Your task to perform on an android device: Open the calendar and show me this week's events? Image 0: 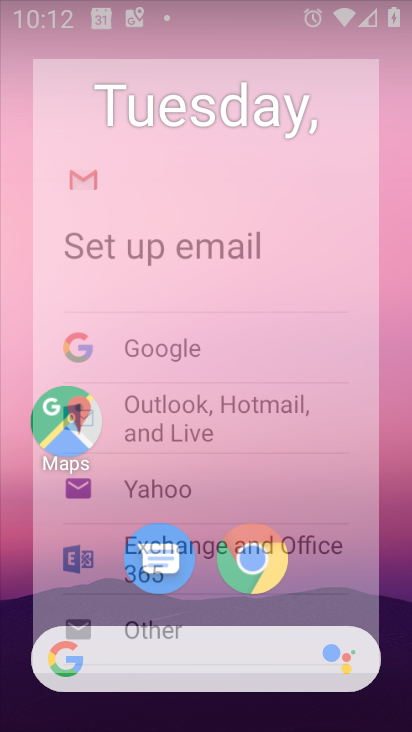
Step 0: drag from (292, 636) to (298, 76)
Your task to perform on an android device: Open the calendar and show me this week's events? Image 1: 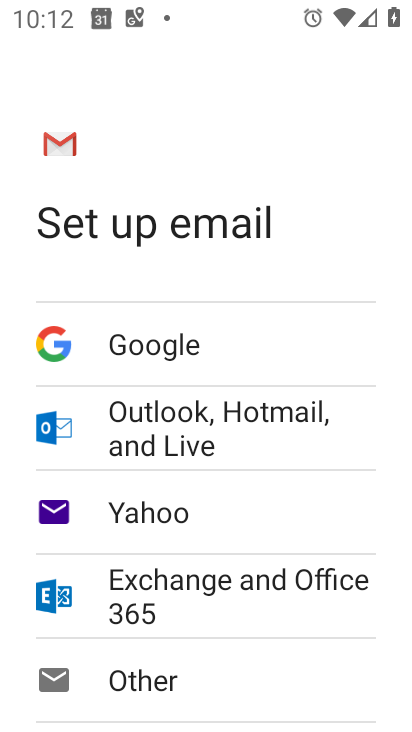
Step 1: press back button
Your task to perform on an android device: Open the calendar and show me this week's events? Image 2: 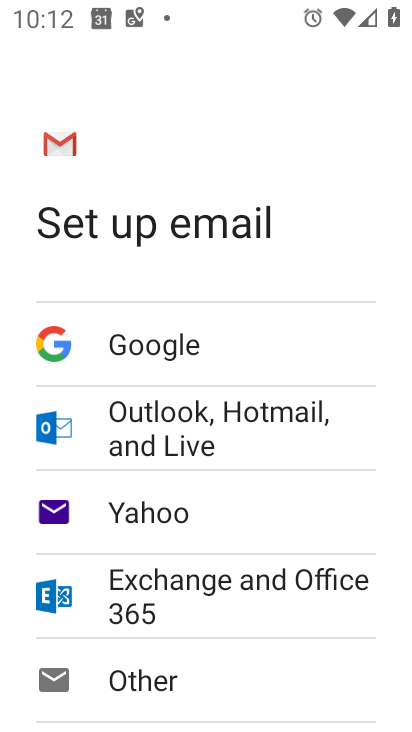
Step 2: press back button
Your task to perform on an android device: Open the calendar and show me this week's events? Image 3: 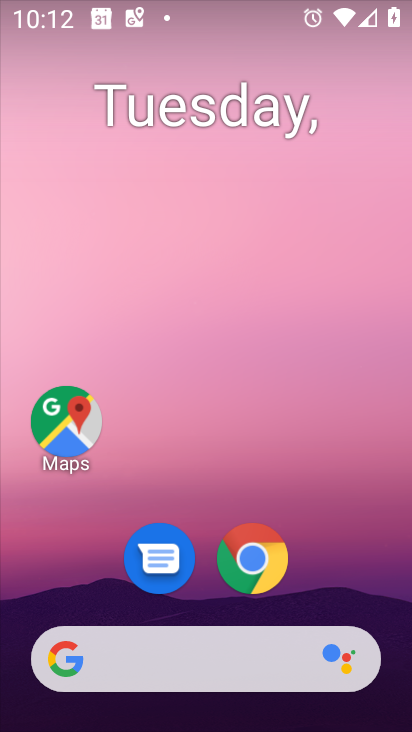
Step 3: drag from (268, 563) to (128, 35)
Your task to perform on an android device: Open the calendar and show me this week's events? Image 4: 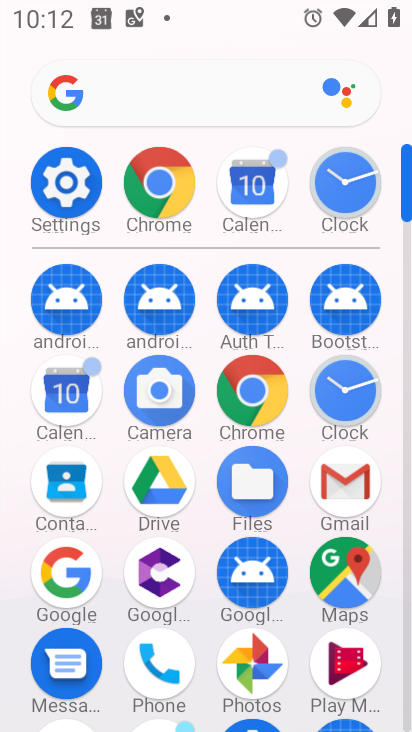
Step 4: click (81, 398)
Your task to perform on an android device: Open the calendar and show me this week's events? Image 5: 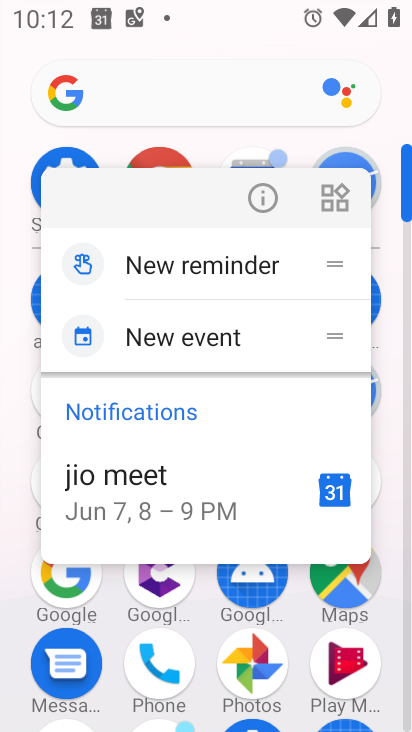
Step 5: click (86, 381)
Your task to perform on an android device: Open the calendar and show me this week's events? Image 6: 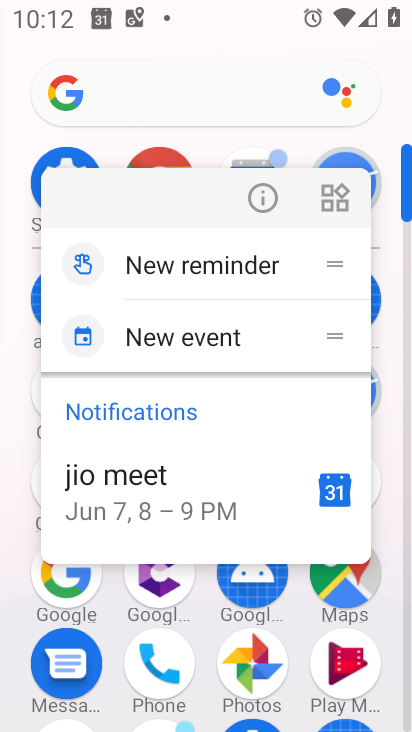
Step 6: click (0, 422)
Your task to perform on an android device: Open the calendar and show me this week's events? Image 7: 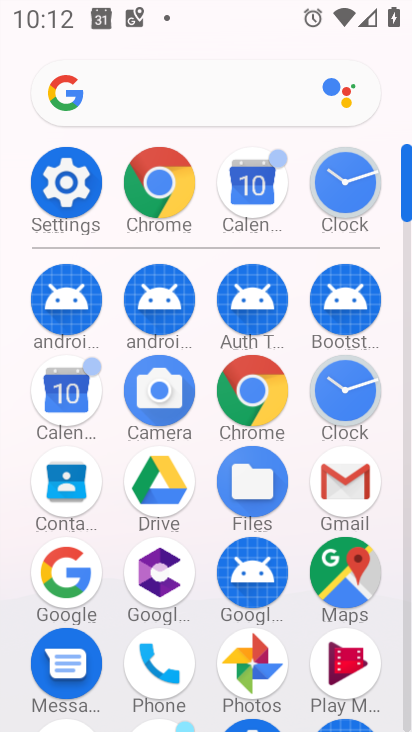
Step 7: click (22, 405)
Your task to perform on an android device: Open the calendar and show me this week's events? Image 8: 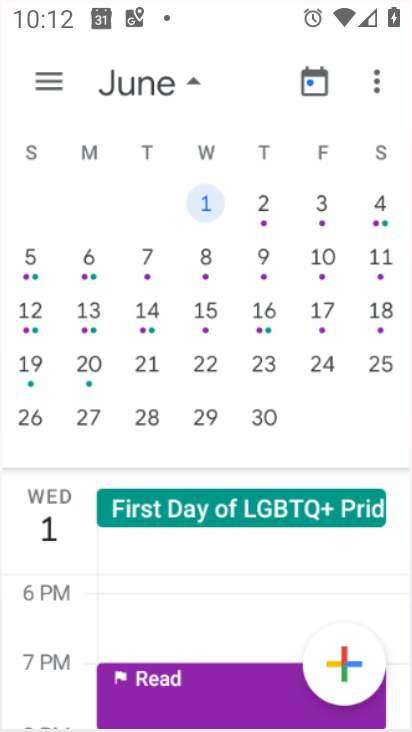
Step 8: click (67, 388)
Your task to perform on an android device: Open the calendar and show me this week's events? Image 9: 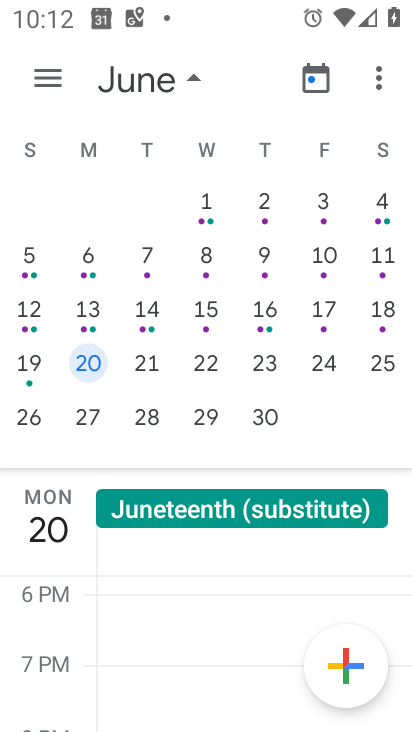
Step 9: drag from (94, 335) to (395, 260)
Your task to perform on an android device: Open the calendar and show me this week's events? Image 10: 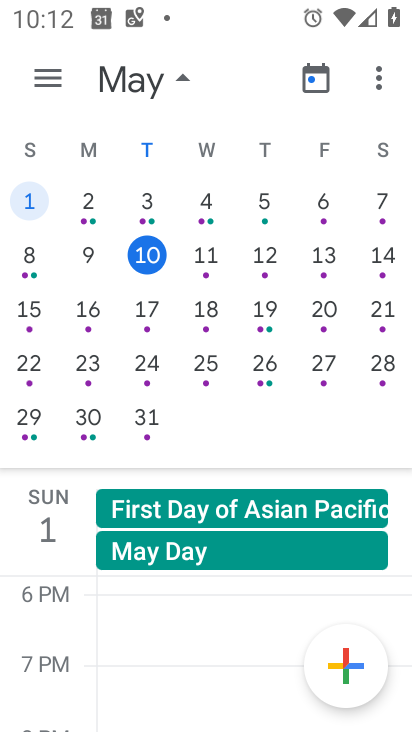
Step 10: drag from (179, 629) to (129, 233)
Your task to perform on an android device: Open the calendar and show me this week's events? Image 11: 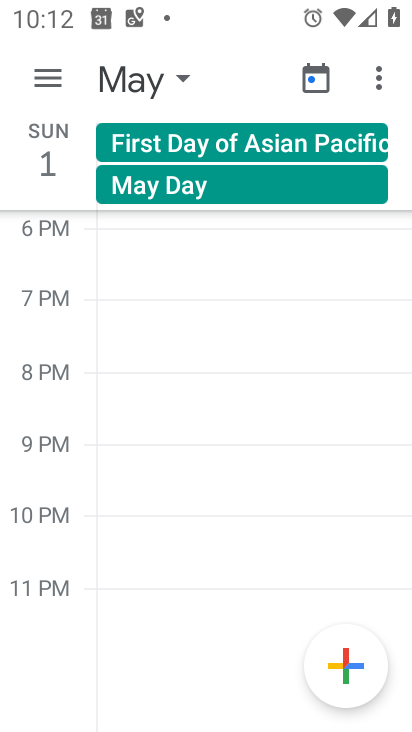
Step 11: drag from (186, 513) to (152, 190)
Your task to perform on an android device: Open the calendar and show me this week's events? Image 12: 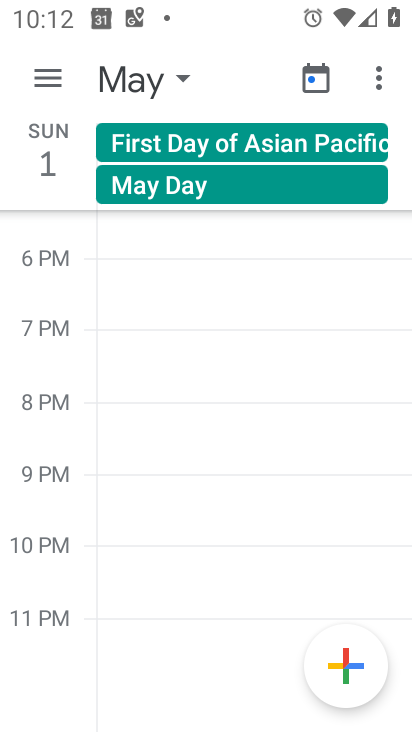
Step 12: drag from (248, 524) to (171, 213)
Your task to perform on an android device: Open the calendar and show me this week's events? Image 13: 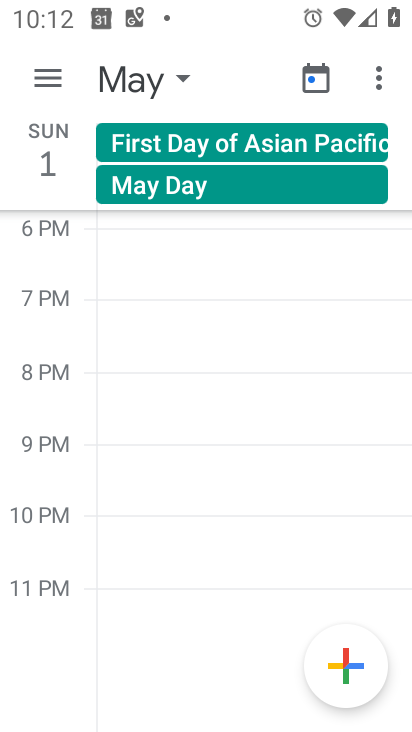
Step 13: click (139, 144)
Your task to perform on an android device: Open the calendar and show me this week's events? Image 14: 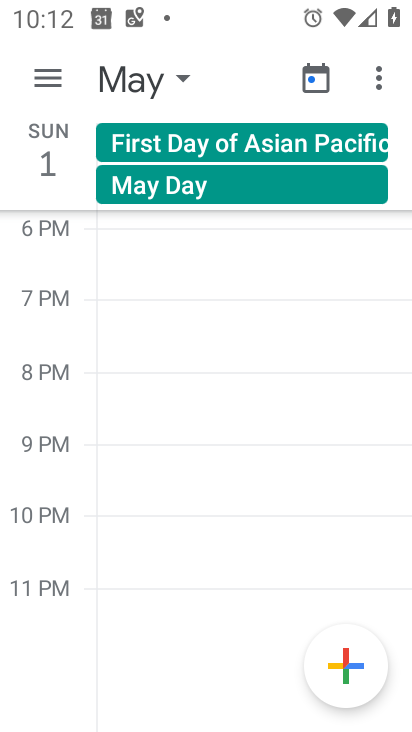
Step 14: drag from (210, 416) to (153, 111)
Your task to perform on an android device: Open the calendar and show me this week's events? Image 15: 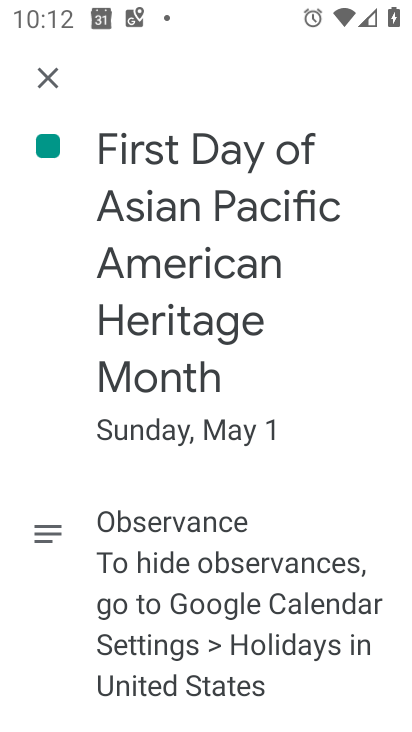
Step 15: drag from (207, 514) to (180, 129)
Your task to perform on an android device: Open the calendar and show me this week's events? Image 16: 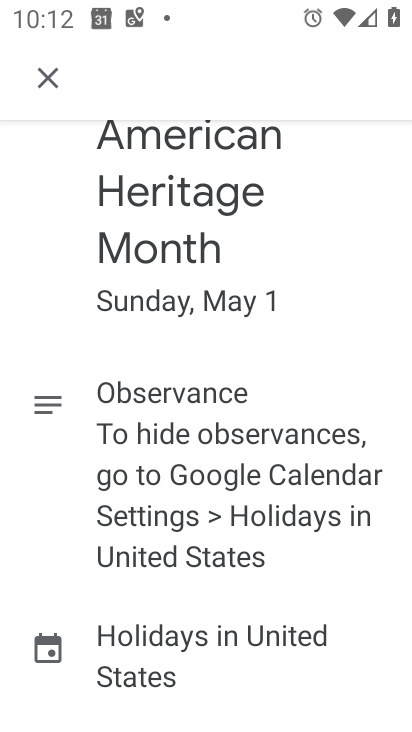
Step 16: drag from (268, 456) to (195, 140)
Your task to perform on an android device: Open the calendar and show me this week's events? Image 17: 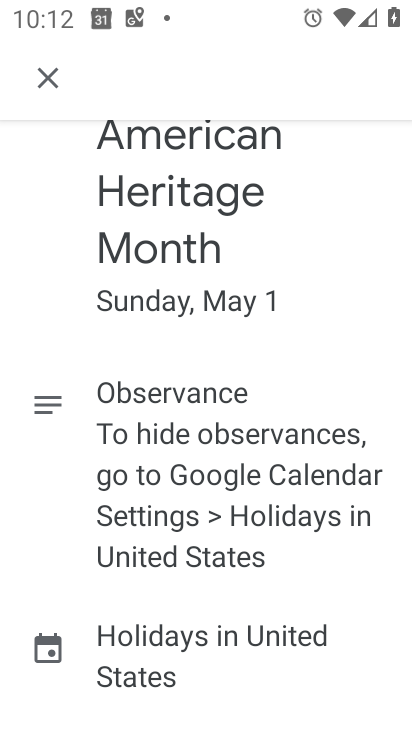
Step 17: click (55, 79)
Your task to perform on an android device: Open the calendar and show me this week's events? Image 18: 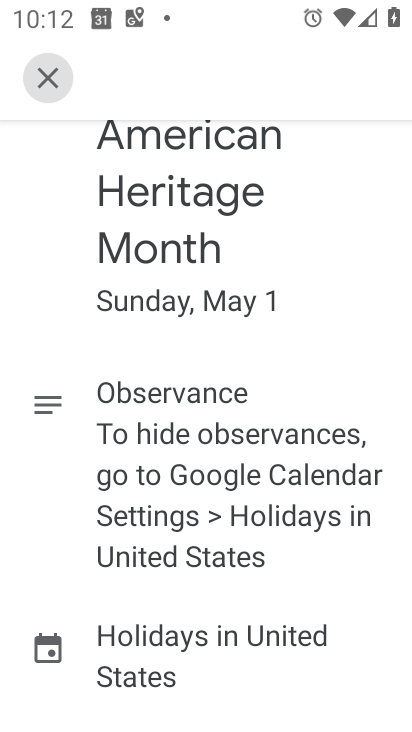
Step 18: click (55, 79)
Your task to perform on an android device: Open the calendar and show me this week's events? Image 19: 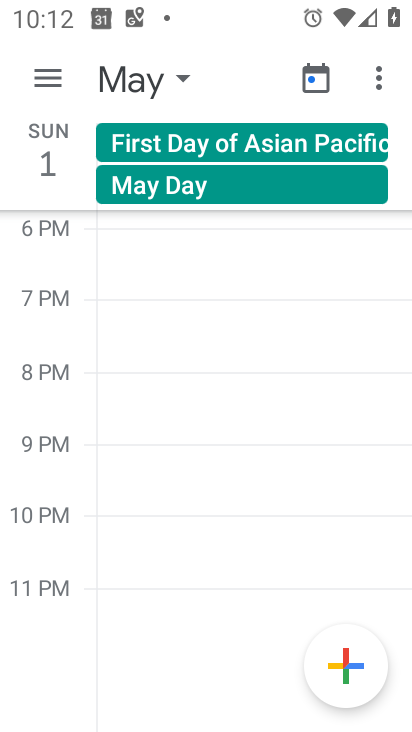
Step 19: drag from (189, 445) to (204, 71)
Your task to perform on an android device: Open the calendar and show me this week's events? Image 20: 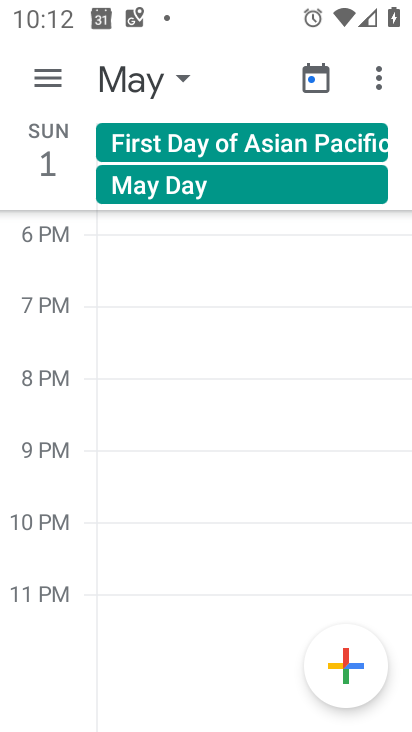
Step 20: drag from (207, 409) to (124, 148)
Your task to perform on an android device: Open the calendar and show me this week's events? Image 21: 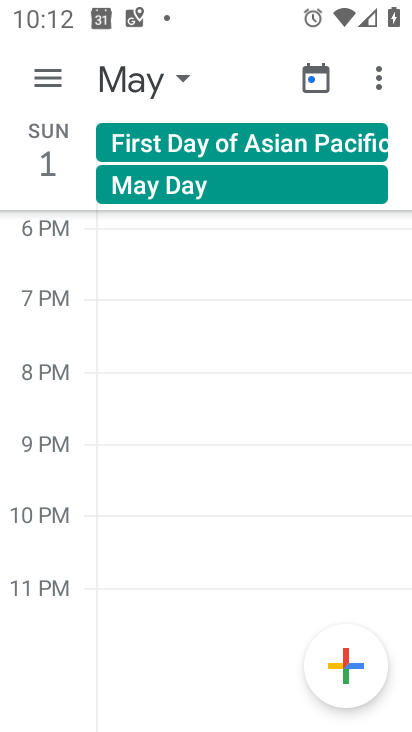
Step 21: drag from (122, 498) to (39, 46)
Your task to perform on an android device: Open the calendar and show me this week's events? Image 22: 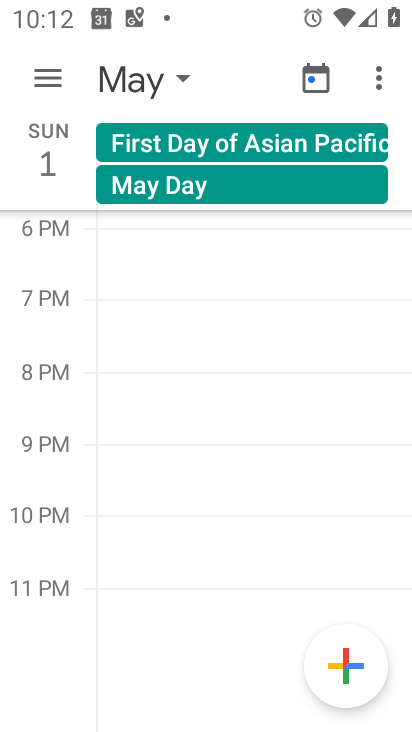
Step 22: click (163, 588)
Your task to perform on an android device: Open the calendar and show me this week's events? Image 23: 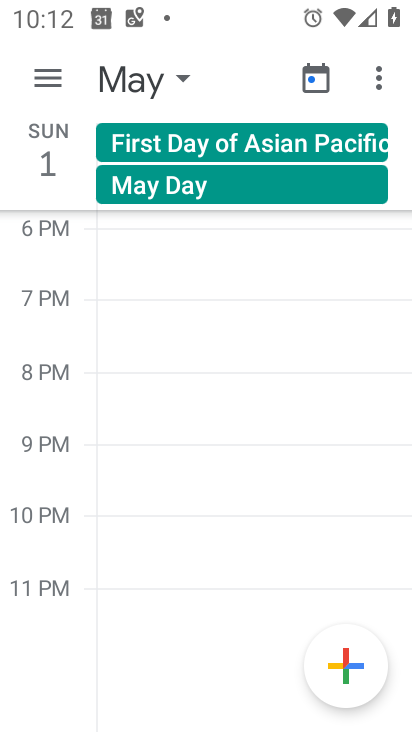
Step 23: drag from (108, 318) to (158, 535)
Your task to perform on an android device: Open the calendar and show me this week's events? Image 24: 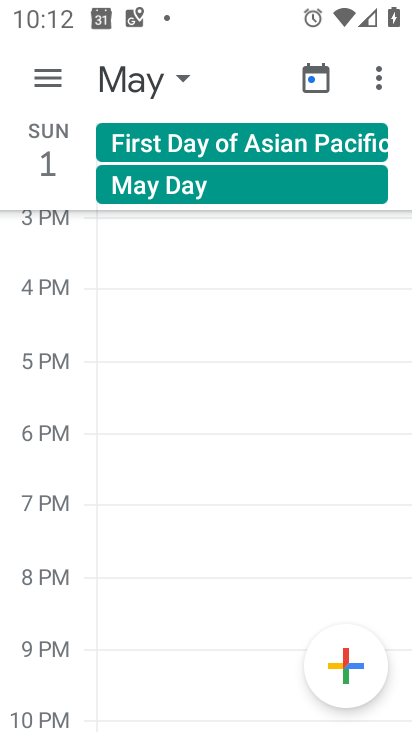
Step 24: drag from (269, 503) to (276, 461)
Your task to perform on an android device: Open the calendar and show me this week's events? Image 25: 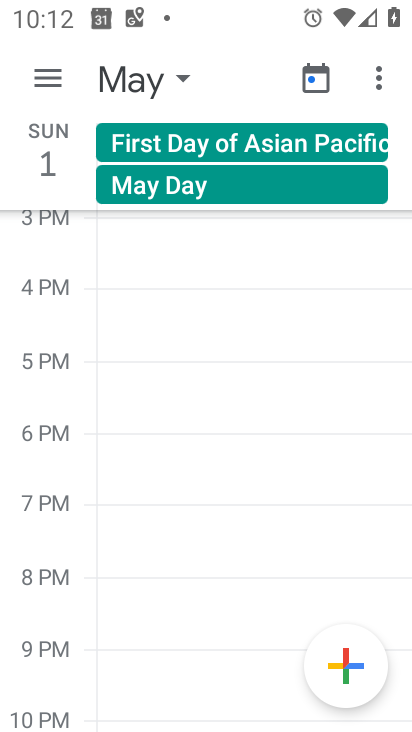
Step 25: drag from (311, 395) to (57, 433)
Your task to perform on an android device: Open the calendar and show me this week's events? Image 26: 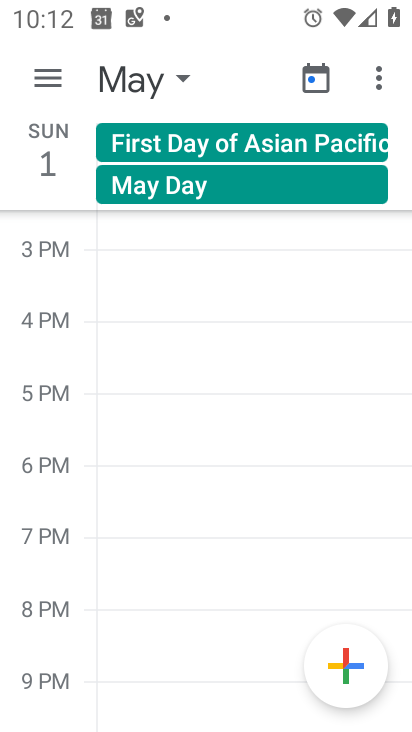
Step 26: click (179, 70)
Your task to perform on an android device: Open the calendar and show me this week's events? Image 27: 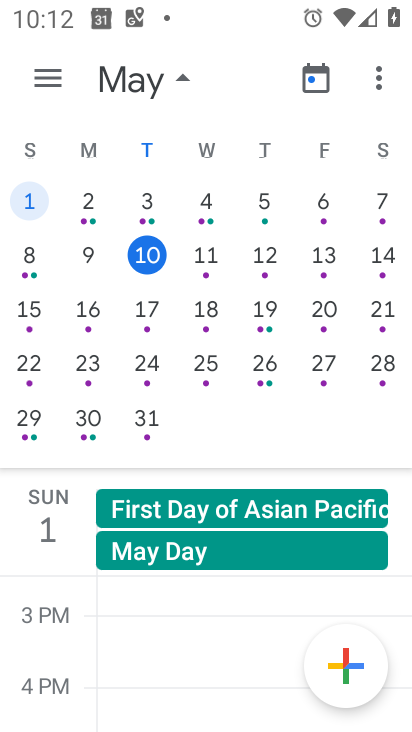
Step 27: click (41, 72)
Your task to perform on an android device: Open the calendar and show me this week's events? Image 28: 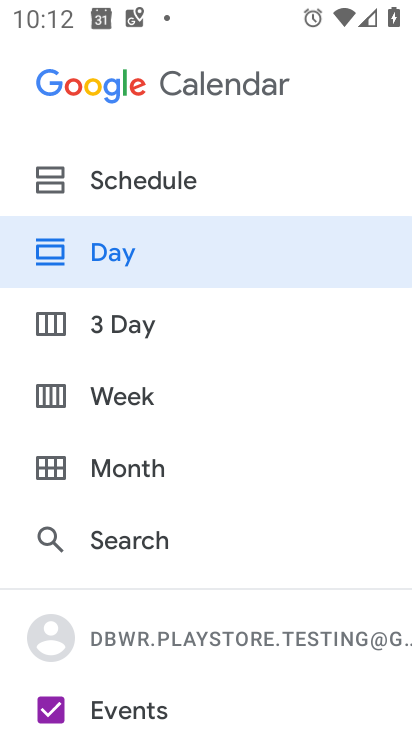
Step 28: click (142, 168)
Your task to perform on an android device: Open the calendar and show me this week's events? Image 29: 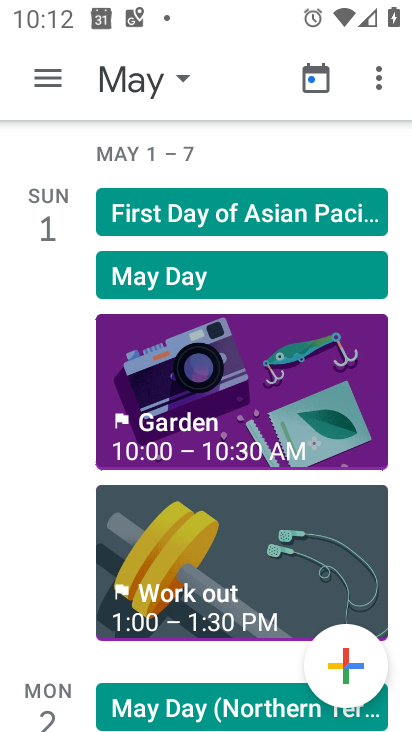
Step 29: task complete